Your task to perform on an android device: Open Google Image 0: 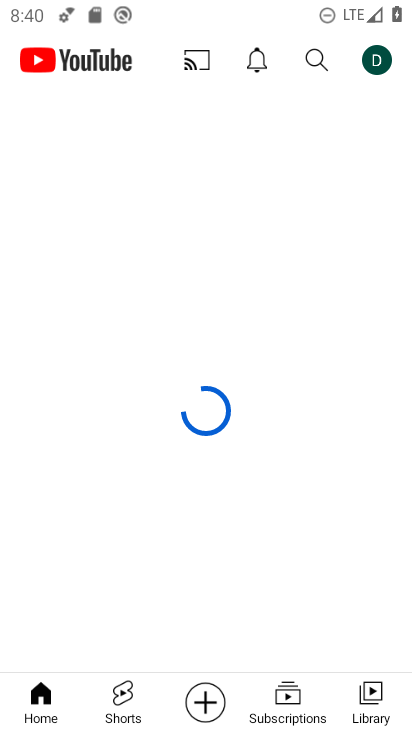
Step 0: press home button
Your task to perform on an android device: Open Google Image 1: 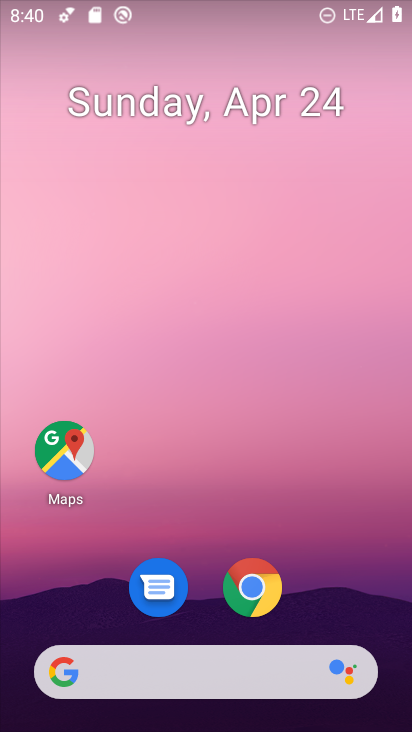
Step 1: drag from (349, 553) to (295, 160)
Your task to perform on an android device: Open Google Image 2: 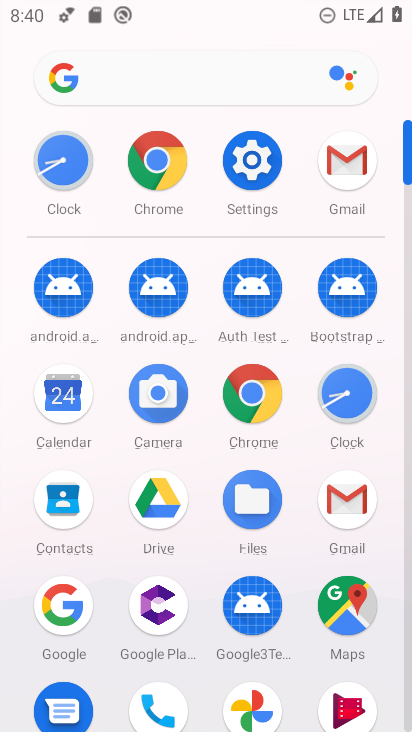
Step 2: click (57, 609)
Your task to perform on an android device: Open Google Image 3: 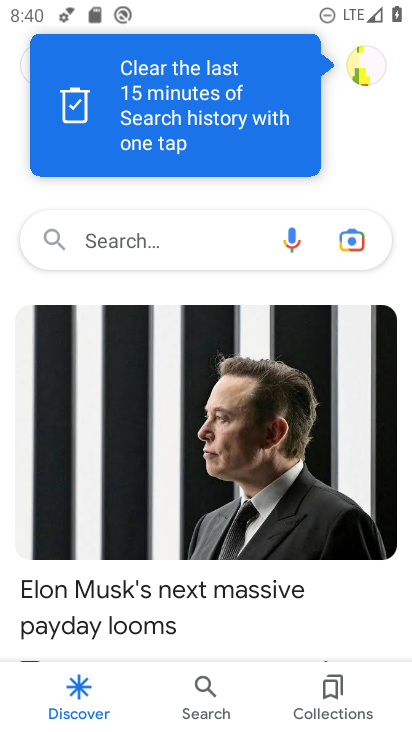
Step 3: task complete